Your task to perform on an android device: Show me popular games on the Play Store Image 0: 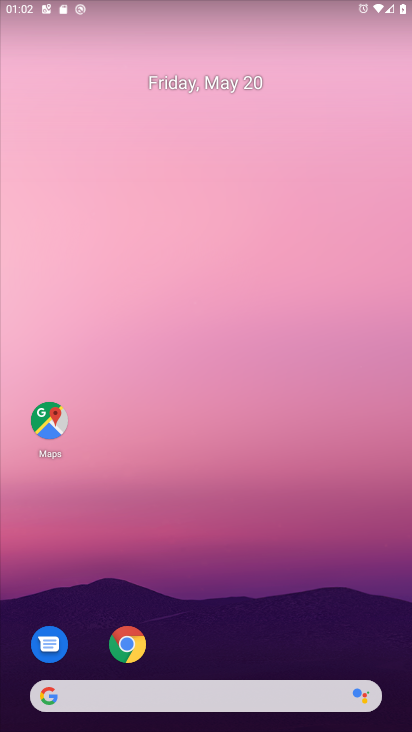
Step 0: drag from (169, 680) to (211, 506)
Your task to perform on an android device: Show me popular games on the Play Store Image 1: 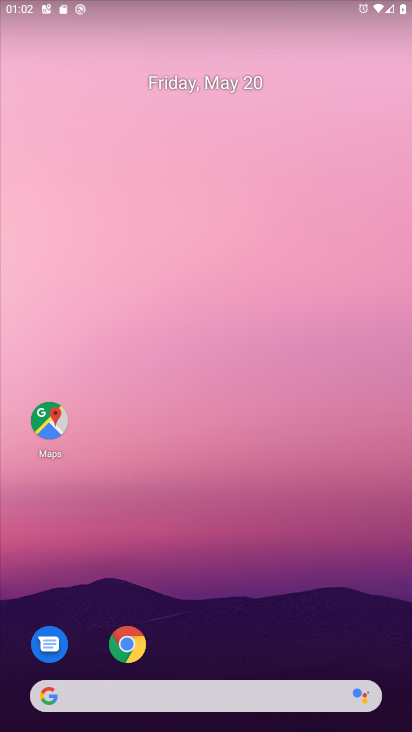
Step 1: drag from (298, 677) to (331, 383)
Your task to perform on an android device: Show me popular games on the Play Store Image 2: 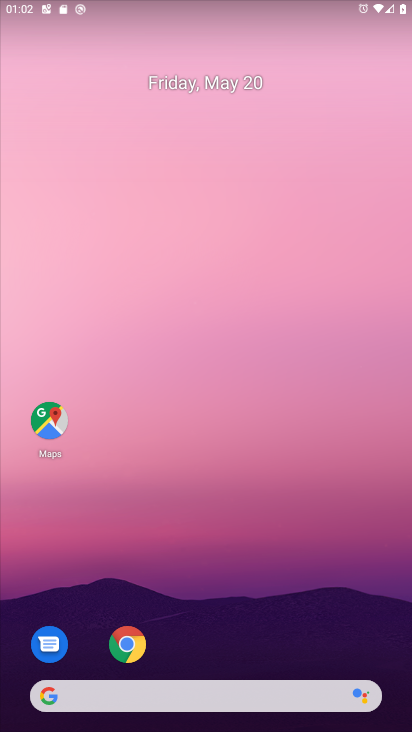
Step 2: drag from (281, 425) to (313, 189)
Your task to perform on an android device: Show me popular games on the Play Store Image 3: 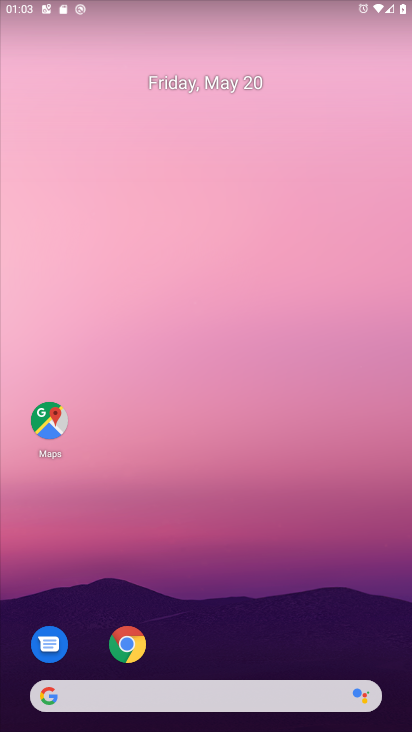
Step 3: drag from (190, 674) to (217, 379)
Your task to perform on an android device: Show me popular games on the Play Store Image 4: 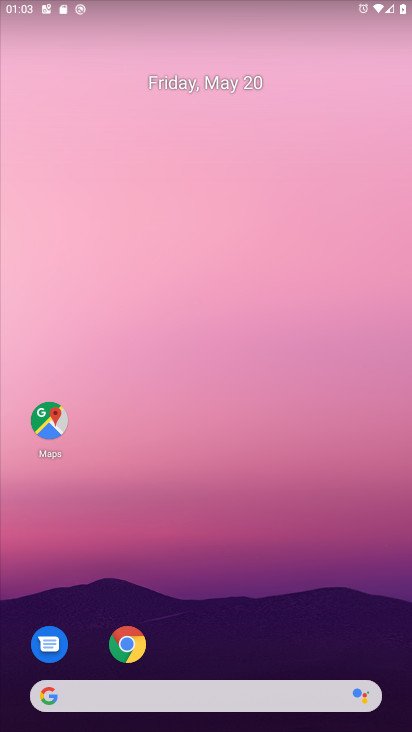
Step 4: drag from (171, 684) to (171, 375)
Your task to perform on an android device: Show me popular games on the Play Store Image 5: 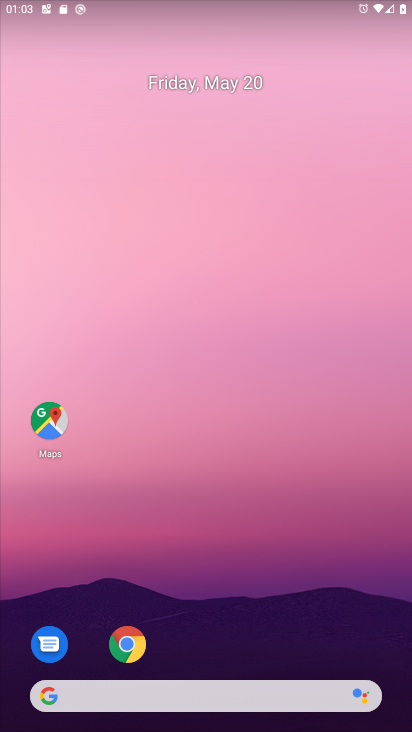
Step 5: drag from (168, 678) to (212, 379)
Your task to perform on an android device: Show me popular games on the Play Store Image 6: 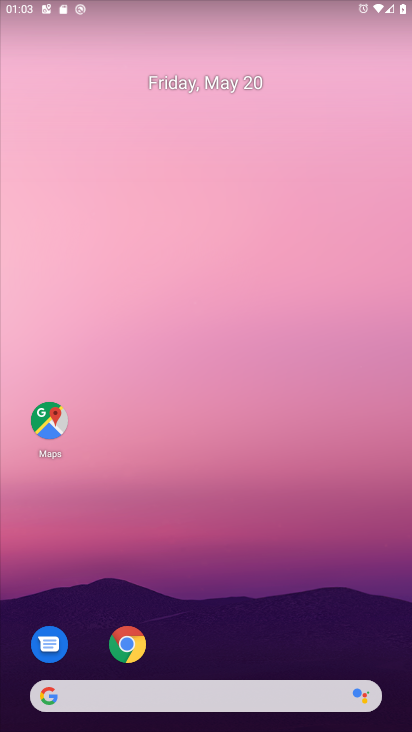
Step 6: drag from (278, 675) to (321, 197)
Your task to perform on an android device: Show me popular games on the Play Store Image 7: 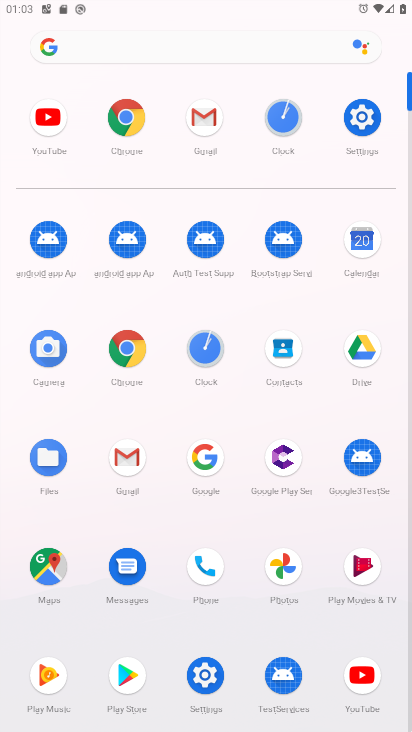
Step 7: click (123, 677)
Your task to perform on an android device: Show me popular games on the Play Store Image 8: 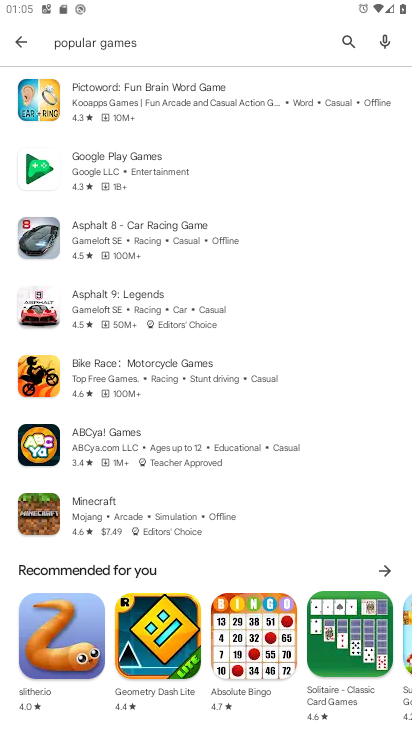
Step 8: task complete